Your task to perform on an android device: find photos in the google photos app Image 0: 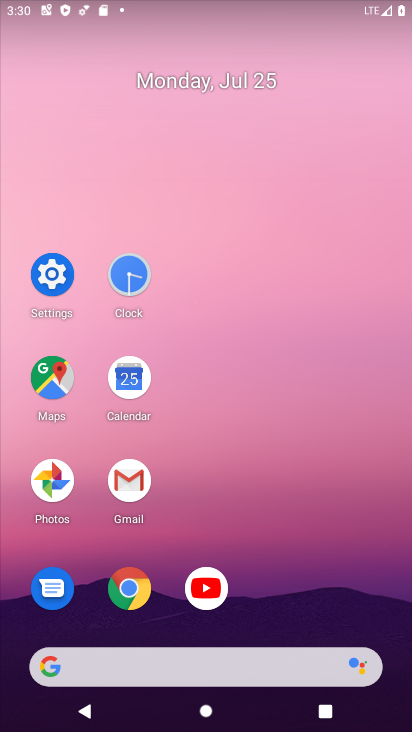
Step 0: click (48, 482)
Your task to perform on an android device: find photos in the google photos app Image 1: 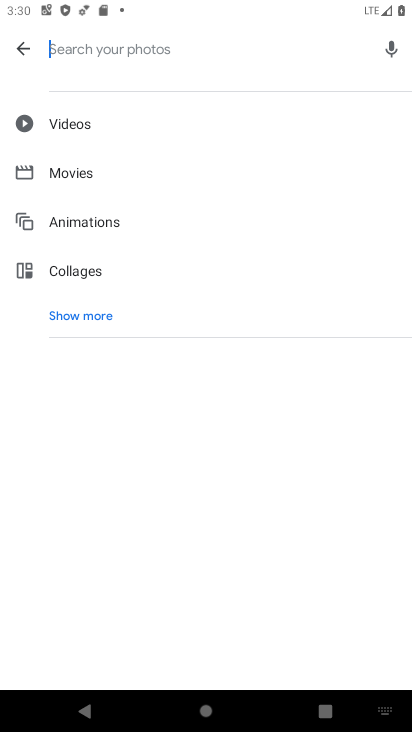
Step 1: task complete